Your task to perform on an android device: change the clock display to analog Image 0: 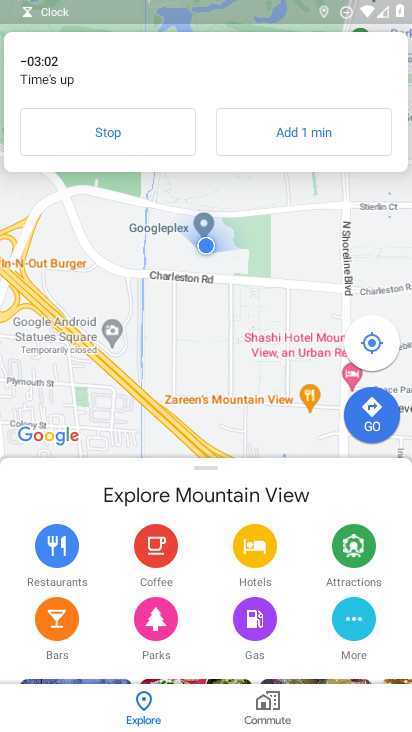
Step 0: press home button
Your task to perform on an android device: change the clock display to analog Image 1: 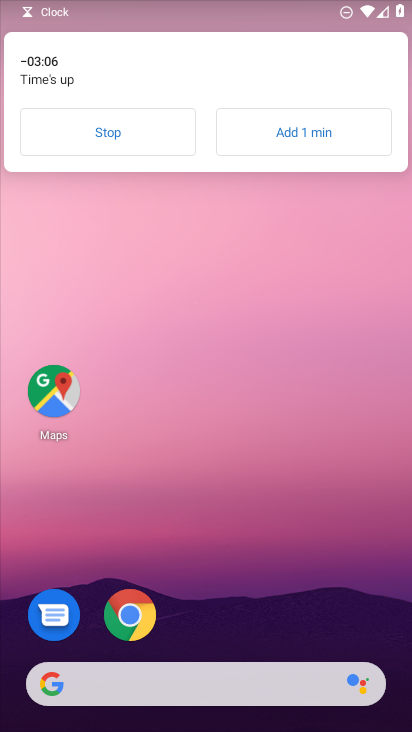
Step 1: click (134, 121)
Your task to perform on an android device: change the clock display to analog Image 2: 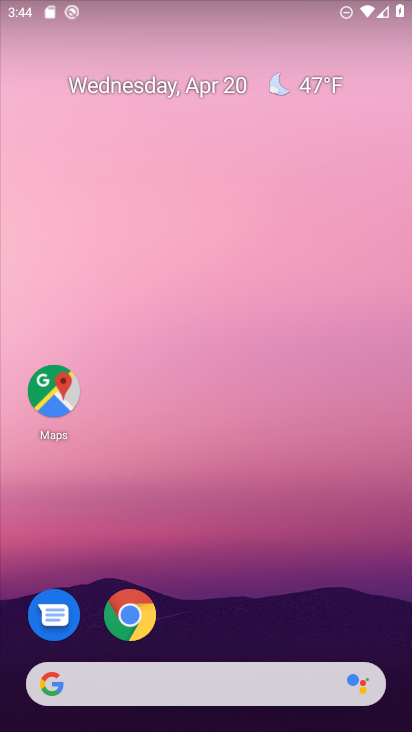
Step 2: drag from (253, 635) to (306, 60)
Your task to perform on an android device: change the clock display to analog Image 3: 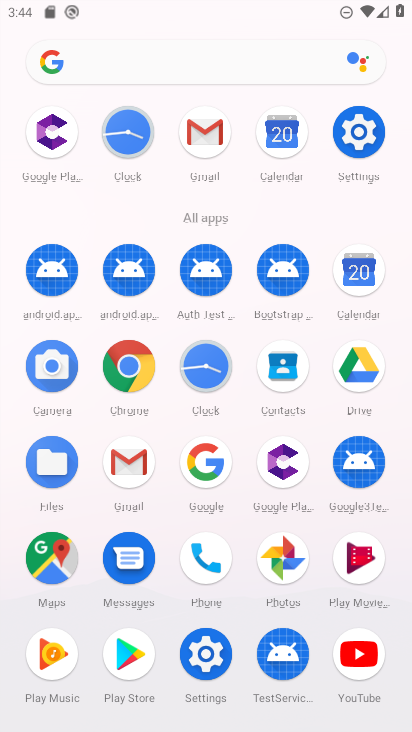
Step 3: click (222, 367)
Your task to perform on an android device: change the clock display to analog Image 4: 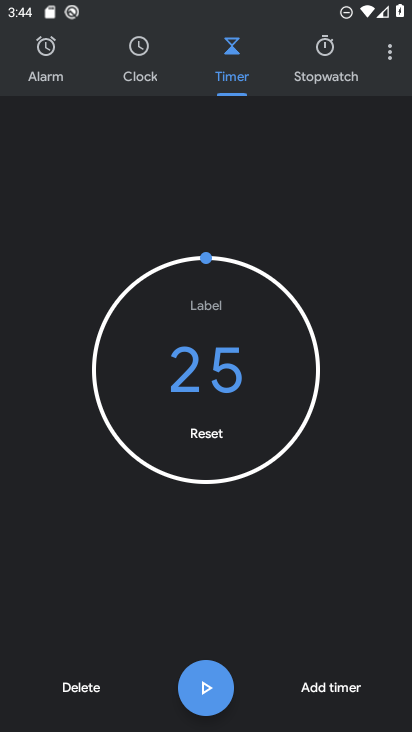
Step 4: click (388, 53)
Your task to perform on an android device: change the clock display to analog Image 5: 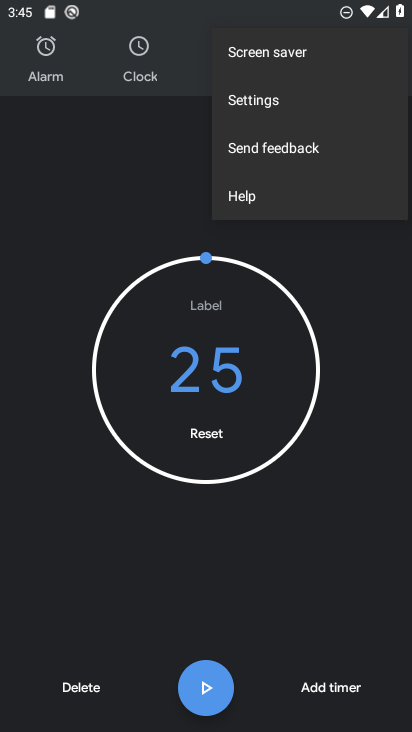
Step 5: click (279, 107)
Your task to perform on an android device: change the clock display to analog Image 6: 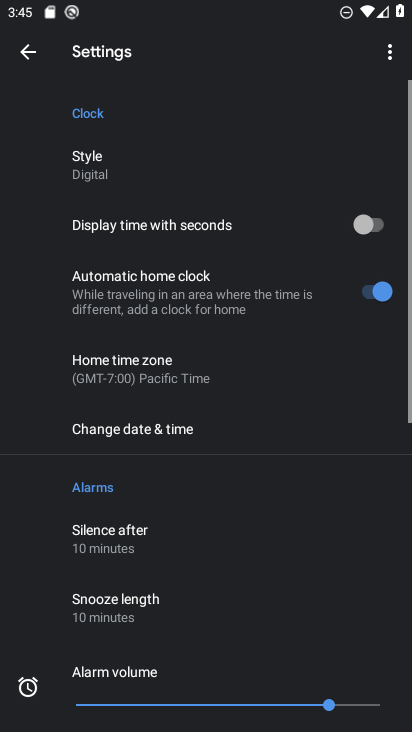
Step 6: click (136, 161)
Your task to perform on an android device: change the clock display to analog Image 7: 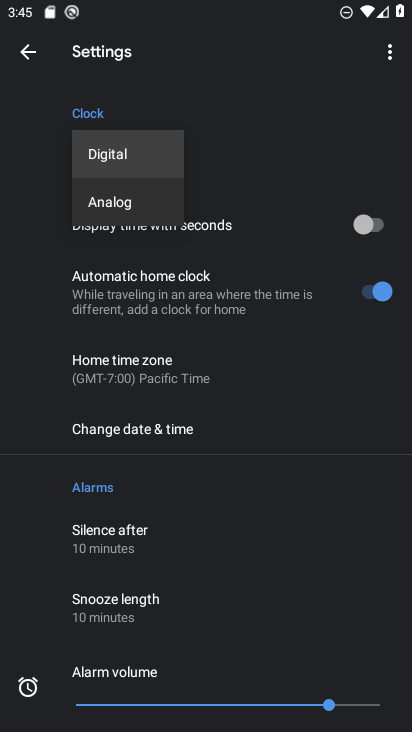
Step 7: click (105, 188)
Your task to perform on an android device: change the clock display to analog Image 8: 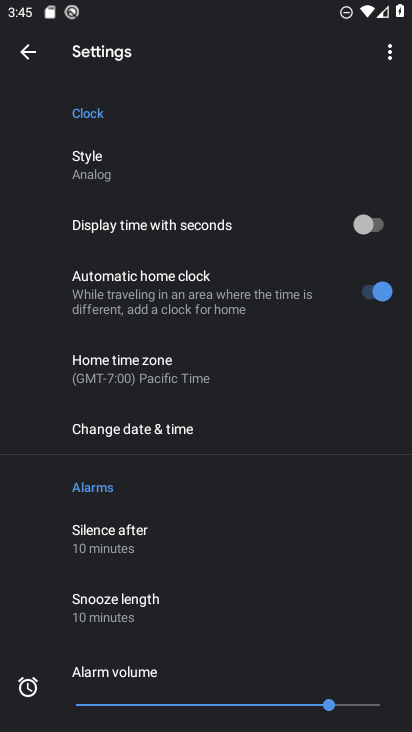
Step 8: task complete